Your task to perform on an android device: open app "Duolingo: language lessons" (install if not already installed), go to login, and select forgot password Image 0: 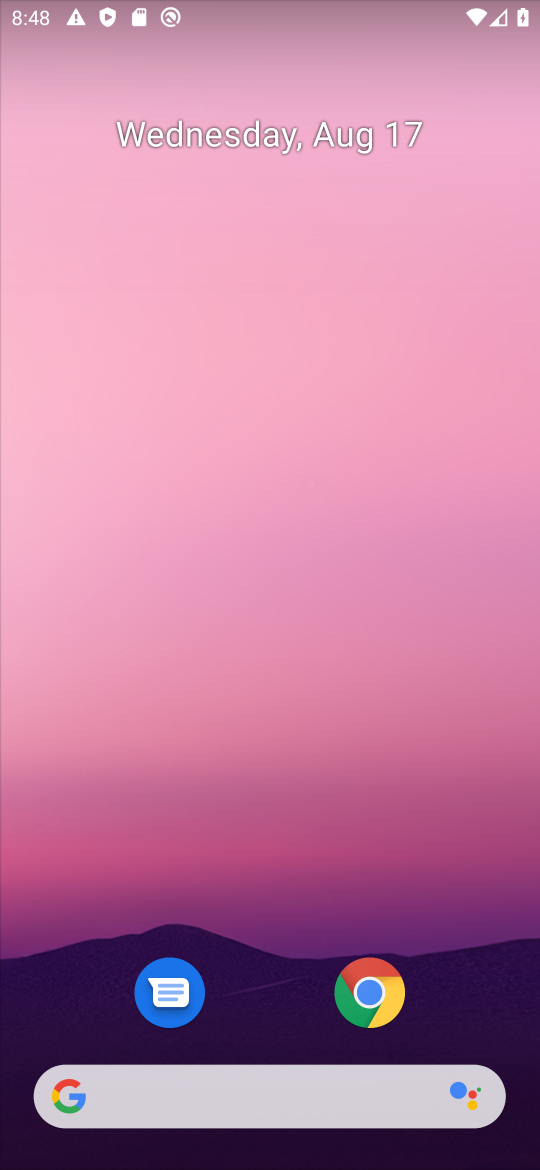
Step 0: drag from (234, 1092) to (329, 288)
Your task to perform on an android device: open app "Duolingo: language lessons" (install if not already installed), go to login, and select forgot password Image 1: 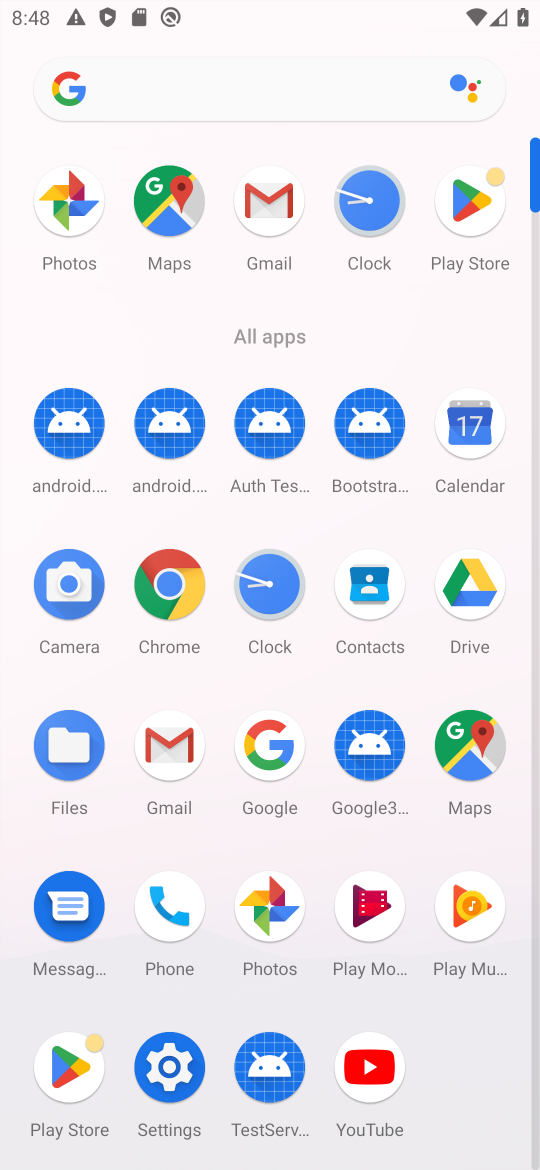
Step 1: click (474, 204)
Your task to perform on an android device: open app "Duolingo: language lessons" (install if not already installed), go to login, and select forgot password Image 2: 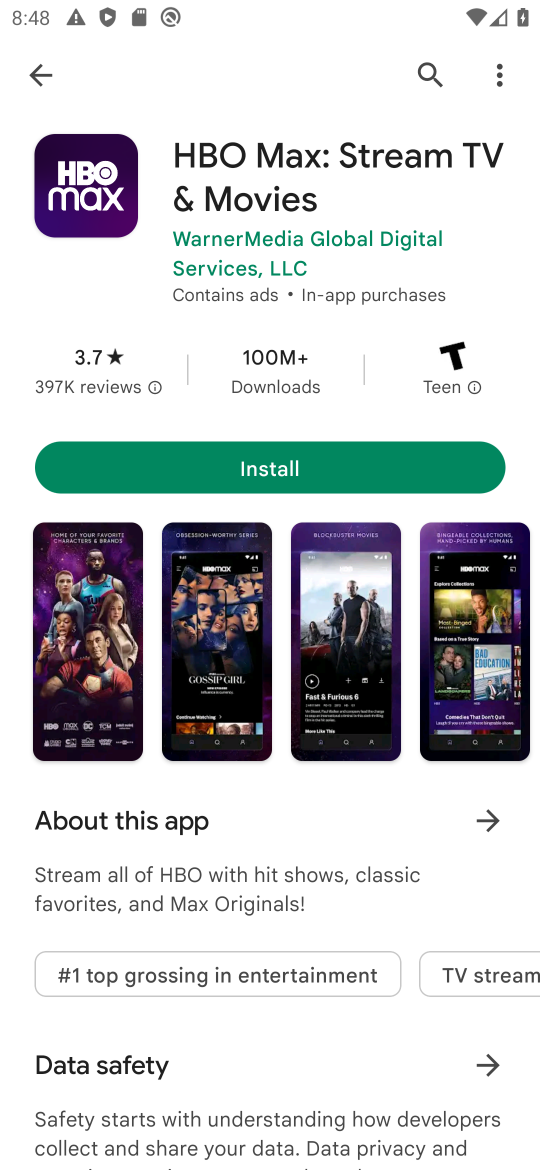
Step 2: click (49, 79)
Your task to perform on an android device: open app "Duolingo: language lessons" (install if not already installed), go to login, and select forgot password Image 3: 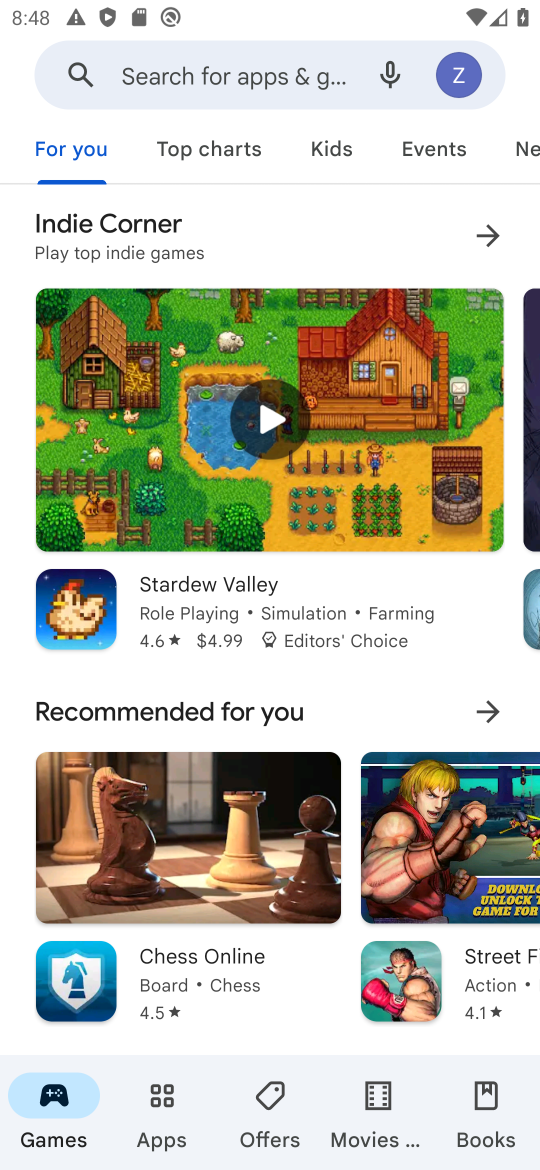
Step 3: click (236, 85)
Your task to perform on an android device: open app "Duolingo: language lessons" (install if not already installed), go to login, and select forgot password Image 4: 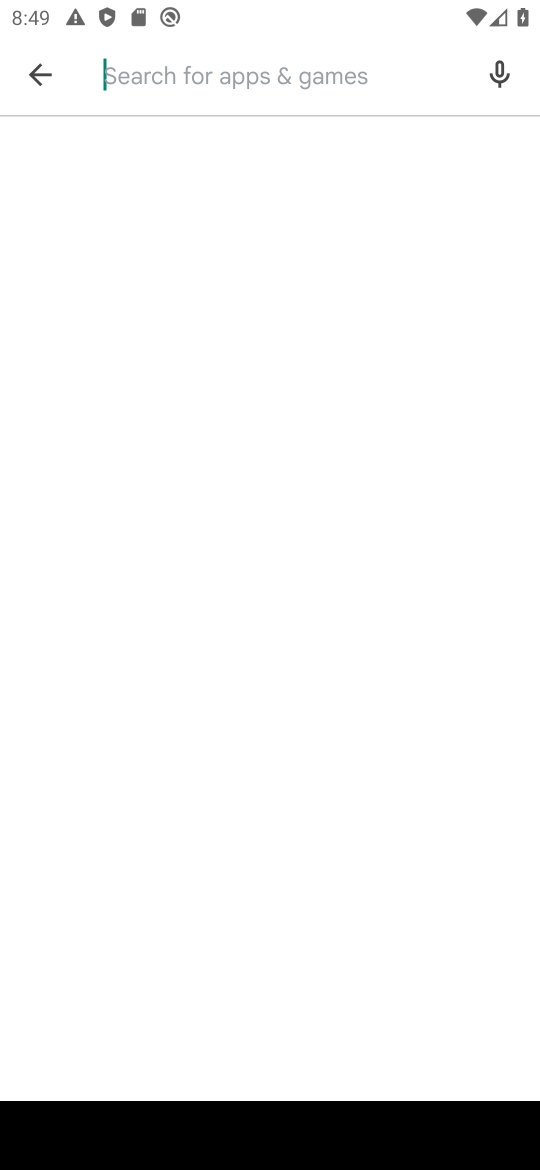
Step 4: type "Duolingo: language lessons"
Your task to perform on an android device: open app "Duolingo: language lessons" (install if not already installed), go to login, and select forgot password Image 5: 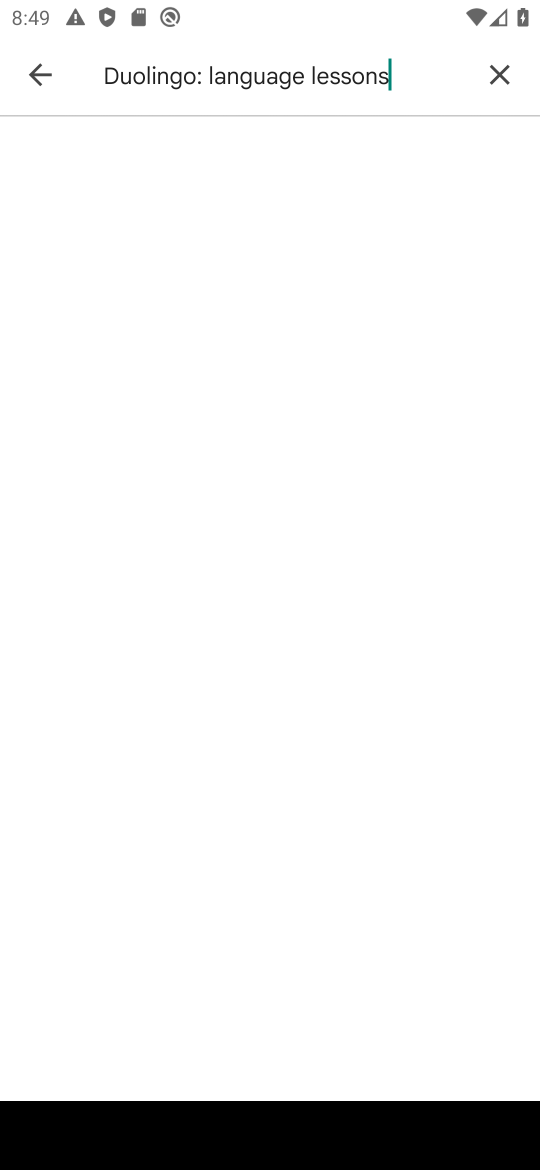
Step 5: type ""
Your task to perform on an android device: open app "Duolingo: language lessons" (install if not already installed), go to login, and select forgot password Image 6: 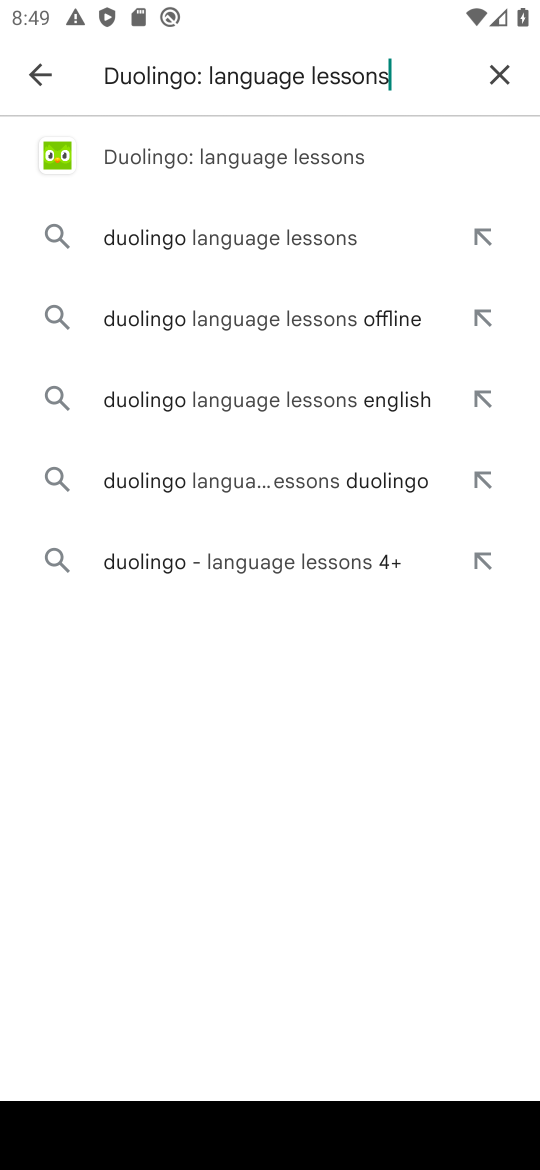
Step 6: click (266, 168)
Your task to perform on an android device: open app "Duolingo: language lessons" (install if not already installed), go to login, and select forgot password Image 7: 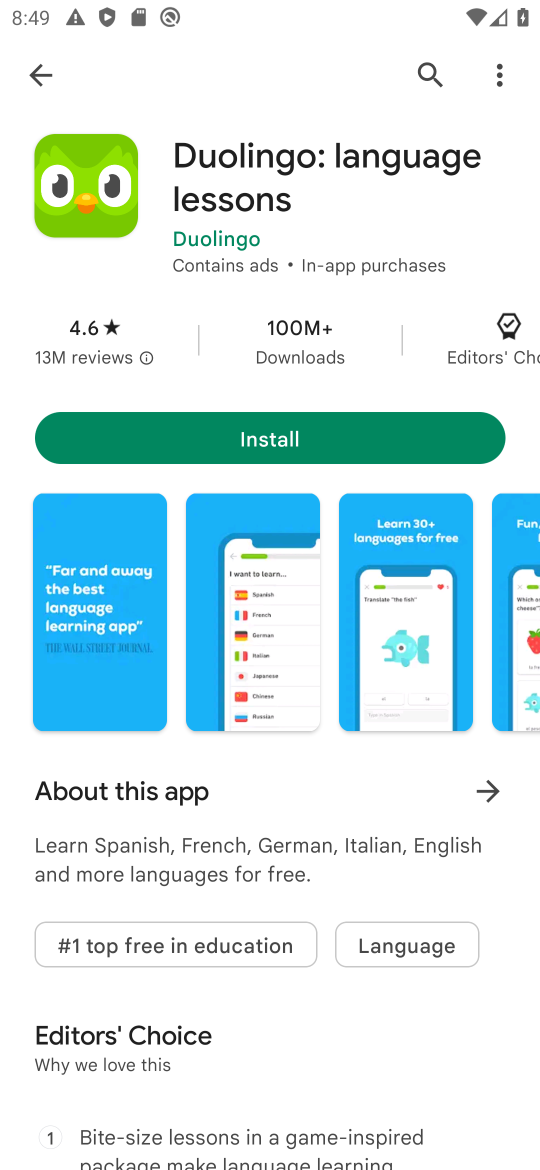
Step 7: click (276, 432)
Your task to perform on an android device: open app "Duolingo: language lessons" (install if not already installed), go to login, and select forgot password Image 8: 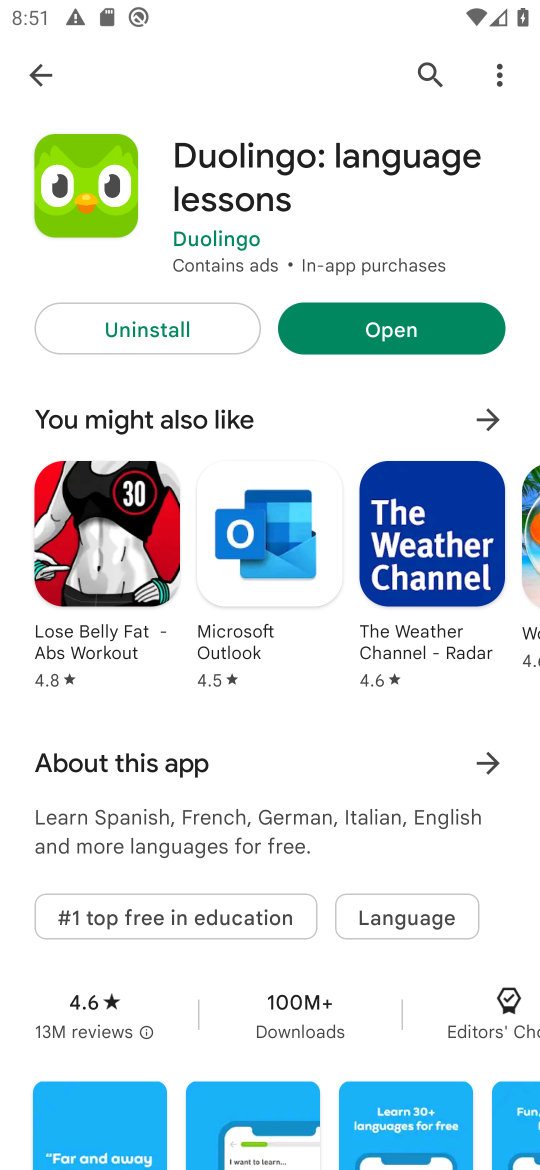
Step 8: click (373, 327)
Your task to perform on an android device: open app "Duolingo: language lessons" (install if not already installed), go to login, and select forgot password Image 9: 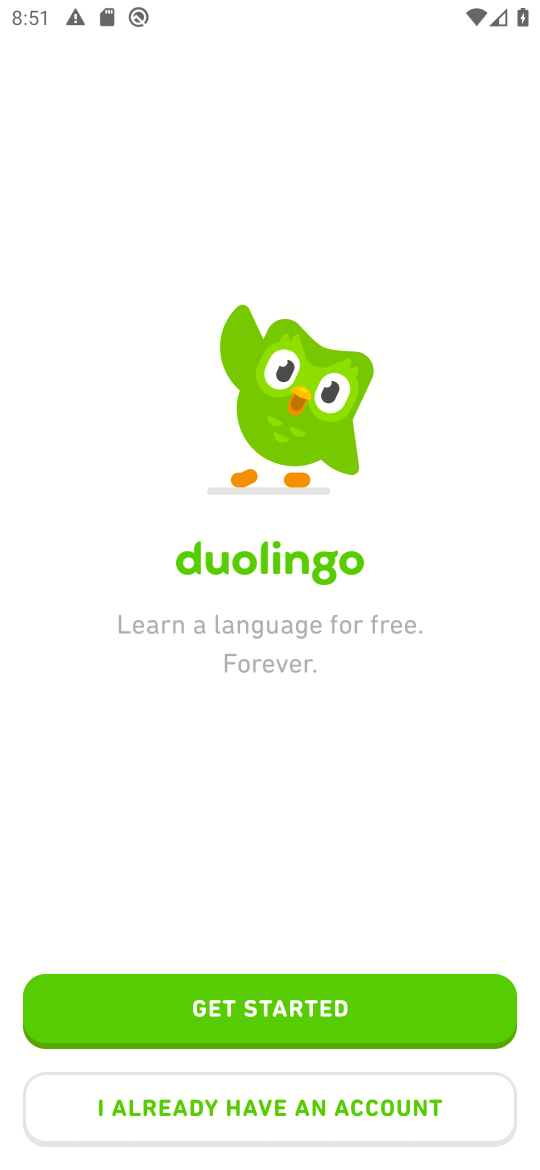
Step 9: click (332, 1001)
Your task to perform on an android device: open app "Duolingo: language lessons" (install if not already installed), go to login, and select forgot password Image 10: 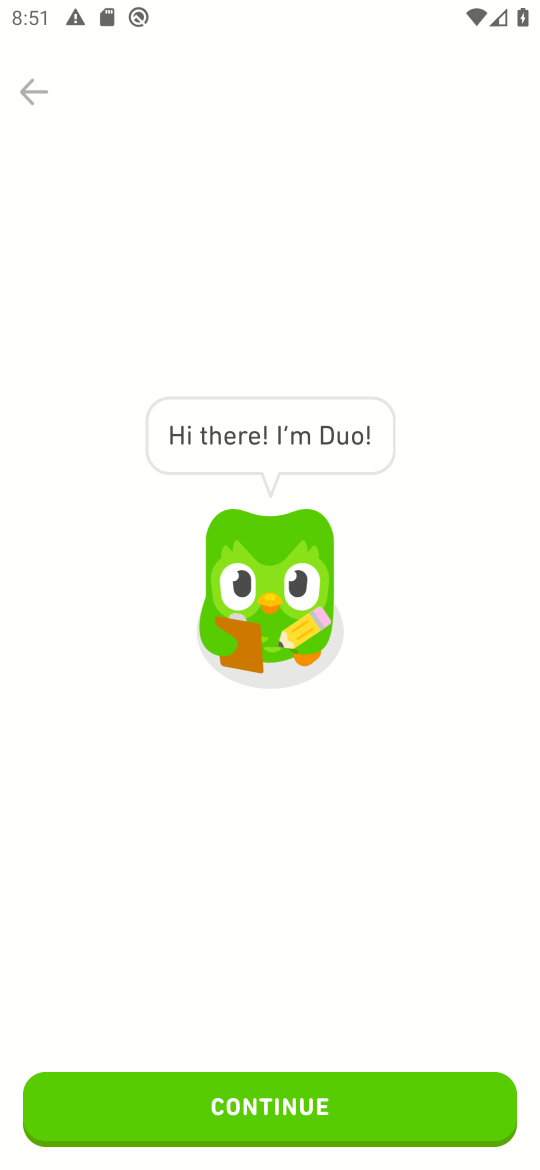
Step 10: click (293, 1096)
Your task to perform on an android device: open app "Duolingo: language lessons" (install if not already installed), go to login, and select forgot password Image 11: 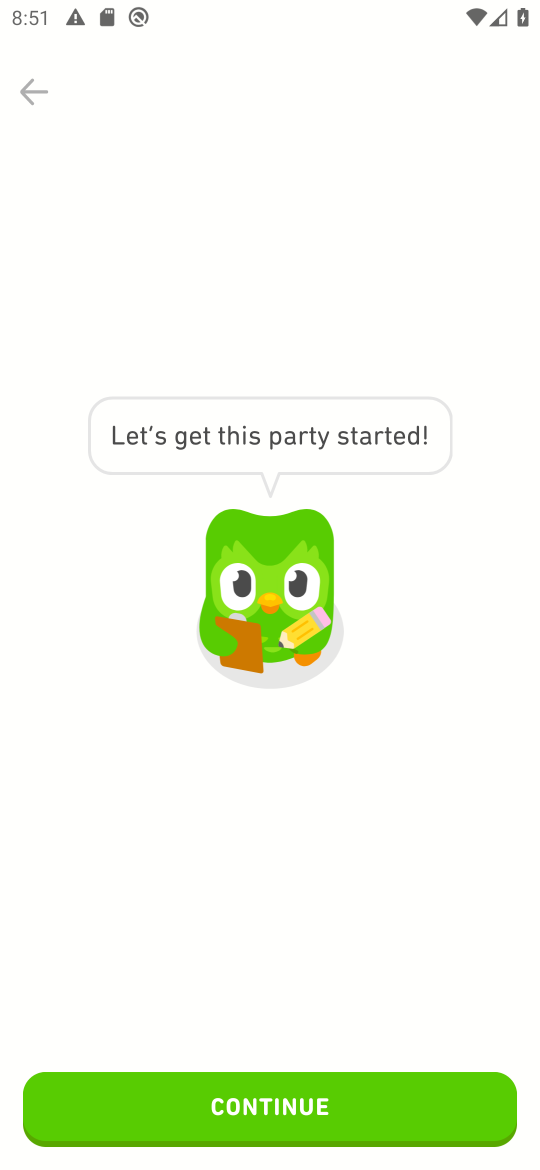
Step 11: click (278, 1115)
Your task to perform on an android device: open app "Duolingo: language lessons" (install if not already installed), go to login, and select forgot password Image 12: 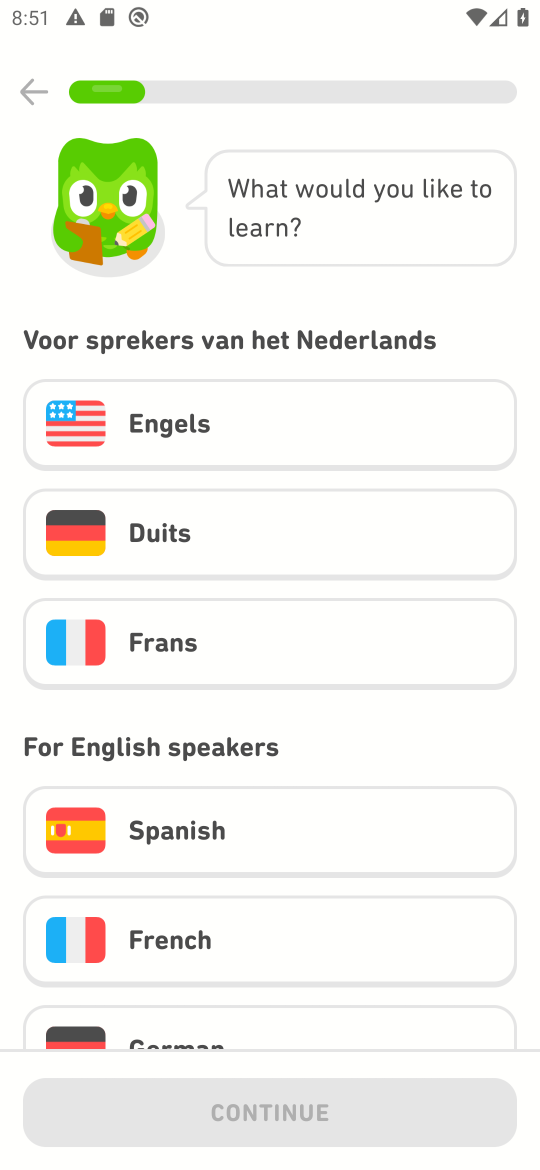
Step 12: drag from (219, 872) to (380, 402)
Your task to perform on an android device: open app "Duolingo: language lessons" (install if not already installed), go to login, and select forgot password Image 13: 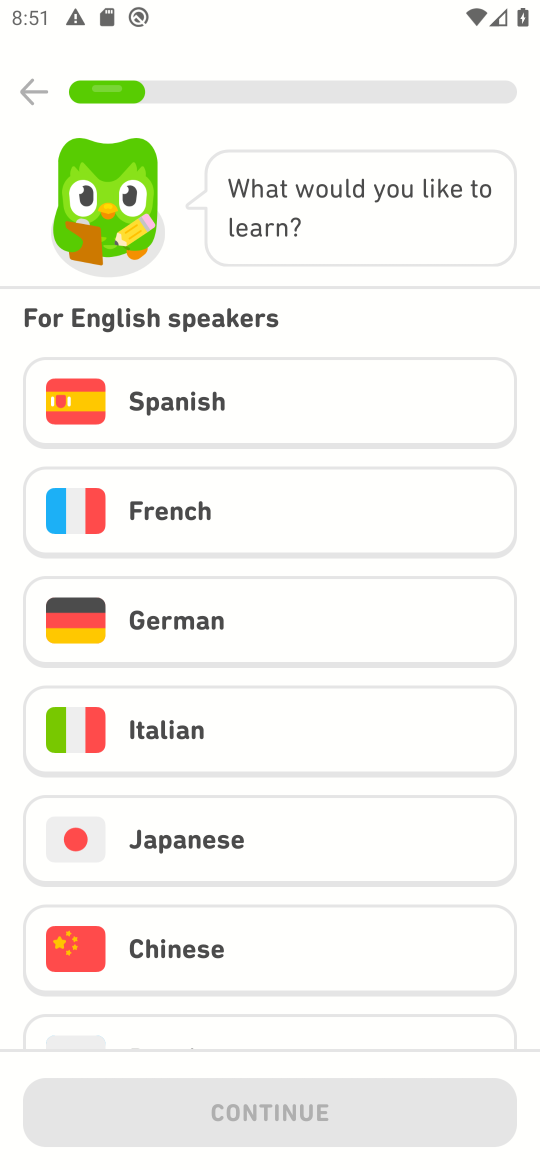
Step 13: drag from (319, 954) to (375, 256)
Your task to perform on an android device: open app "Duolingo: language lessons" (install if not already installed), go to login, and select forgot password Image 14: 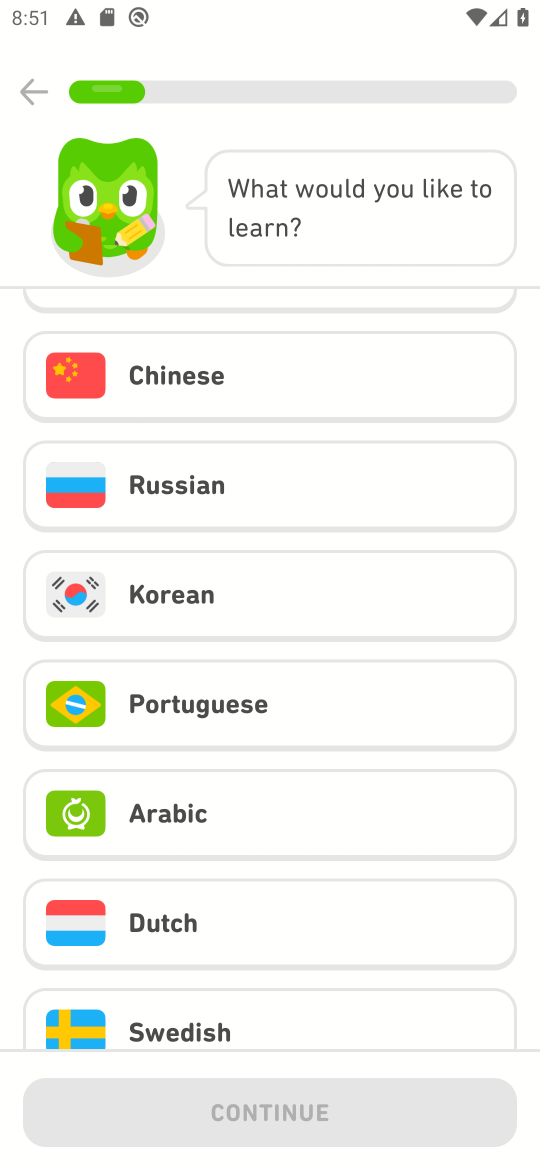
Step 14: drag from (304, 892) to (419, 215)
Your task to perform on an android device: open app "Duolingo: language lessons" (install if not already installed), go to login, and select forgot password Image 15: 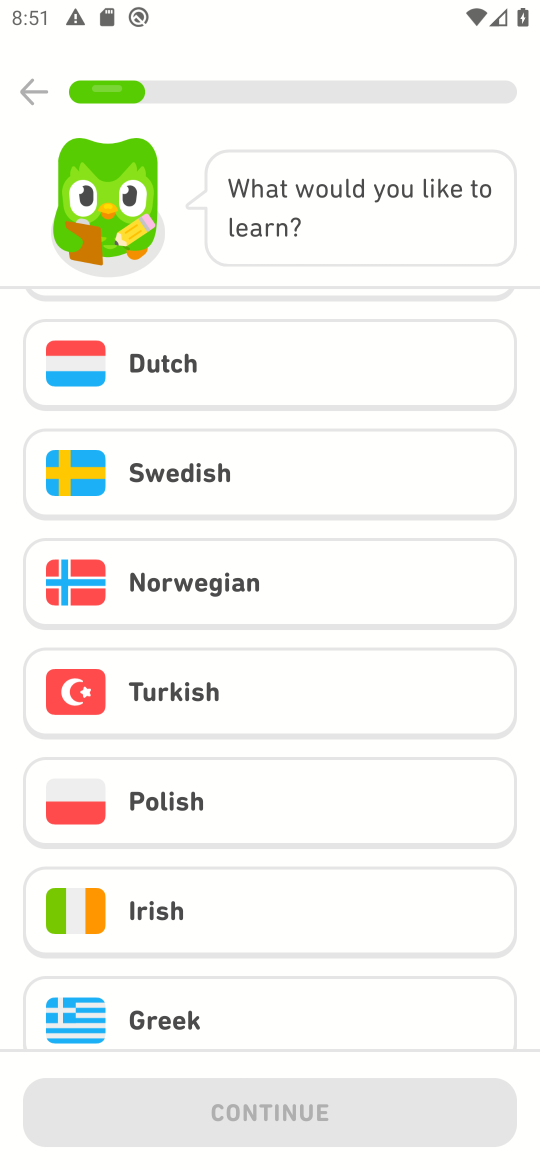
Step 15: drag from (291, 917) to (426, 339)
Your task to perform on an android device: open app "Duolingo: language lessons" (install if not already installed), go to login, and select forgot password Image 16: 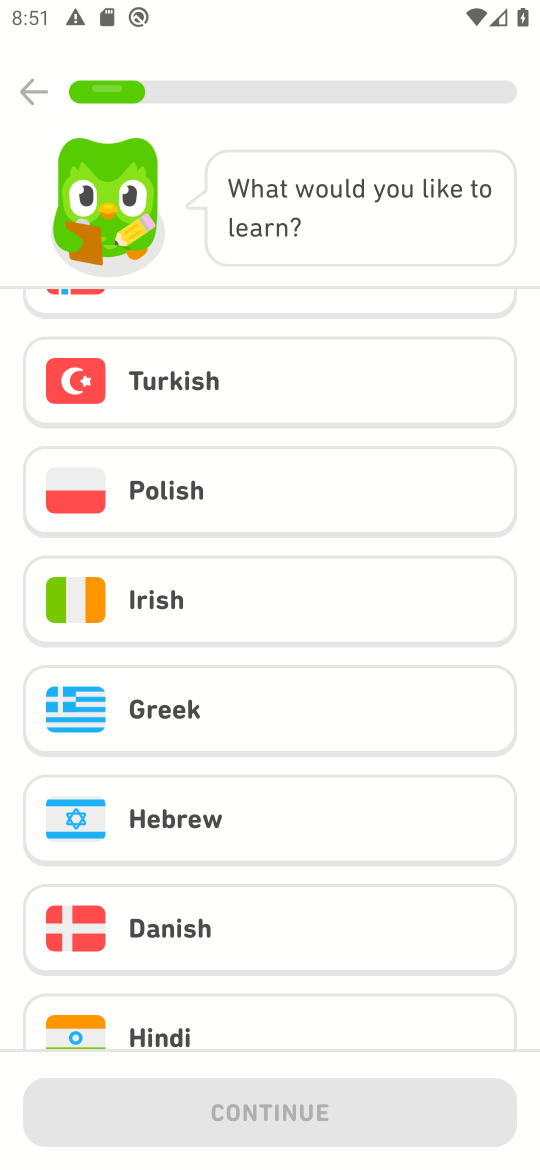
Step 16: click (172, 1012)
Your task to perform on an android device: open app "Duolingo: language lessons" (install if not already installed), go to login, and select forgot password Image 17: 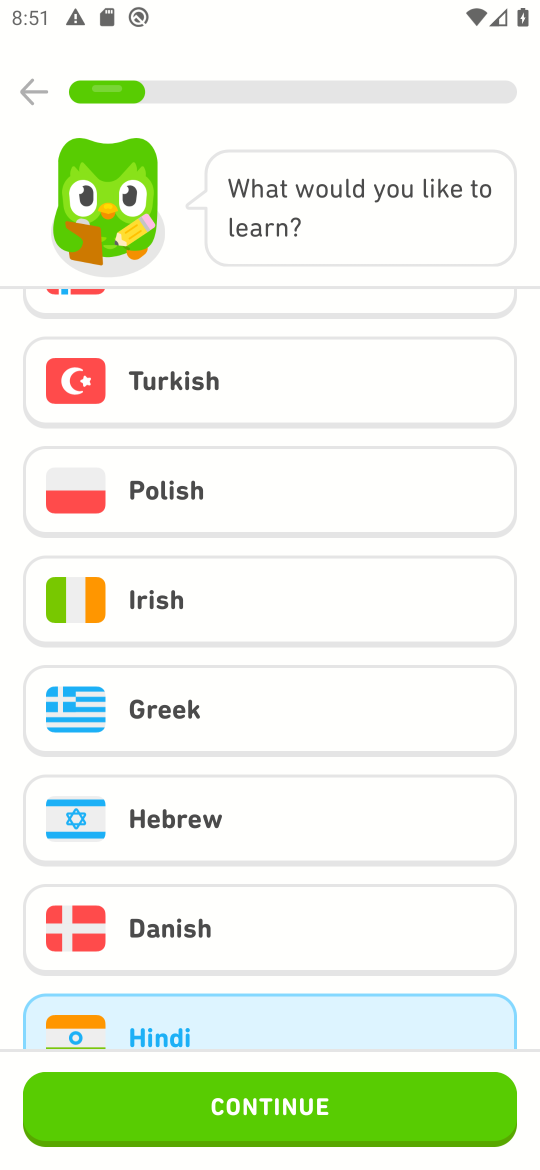
Step 17: click (214, 1117)
Your task to perform on an android device: open app "Duolingo: language lessons" (install if not already installed), go to login, and select forgot password Image 18: 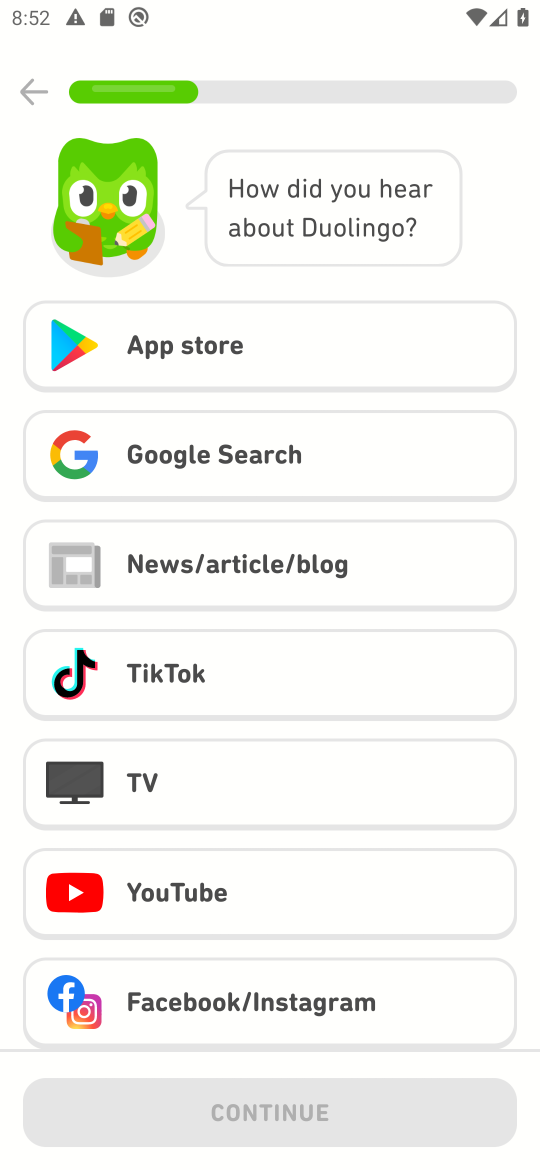
Step 18: click (209, 370)
Your task to perform on an android device: open app "Duolingo: language lessons" (install if not already installed), go to login, and select forgot password Image 19: 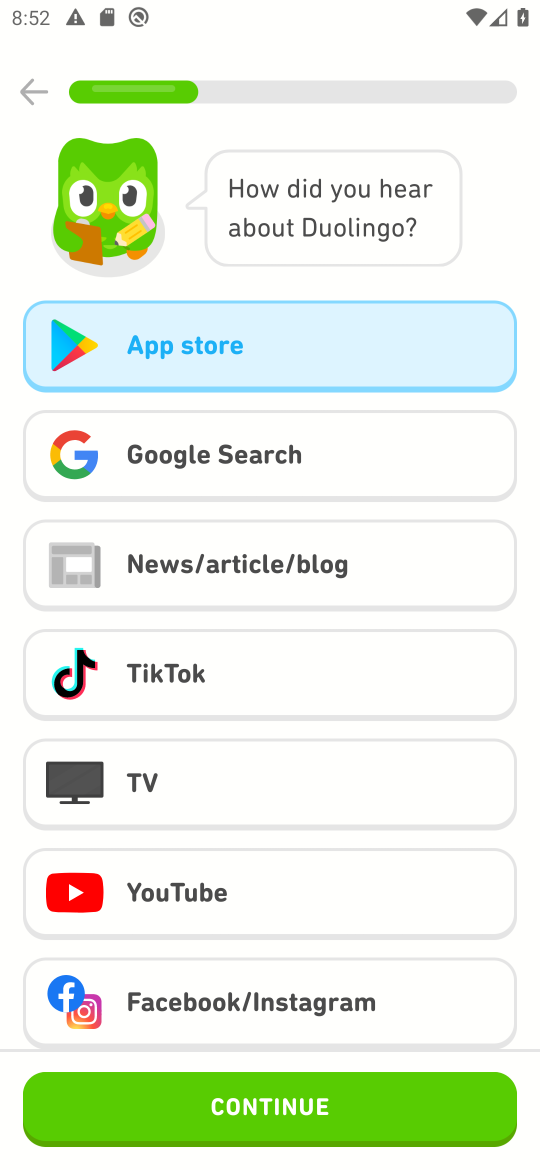
Step 19: click (299, 1006)
Your task to perform on an android device: open app "Duolingo: language lessons" (install if not already installed), go to login, and select forgot password Image 20: 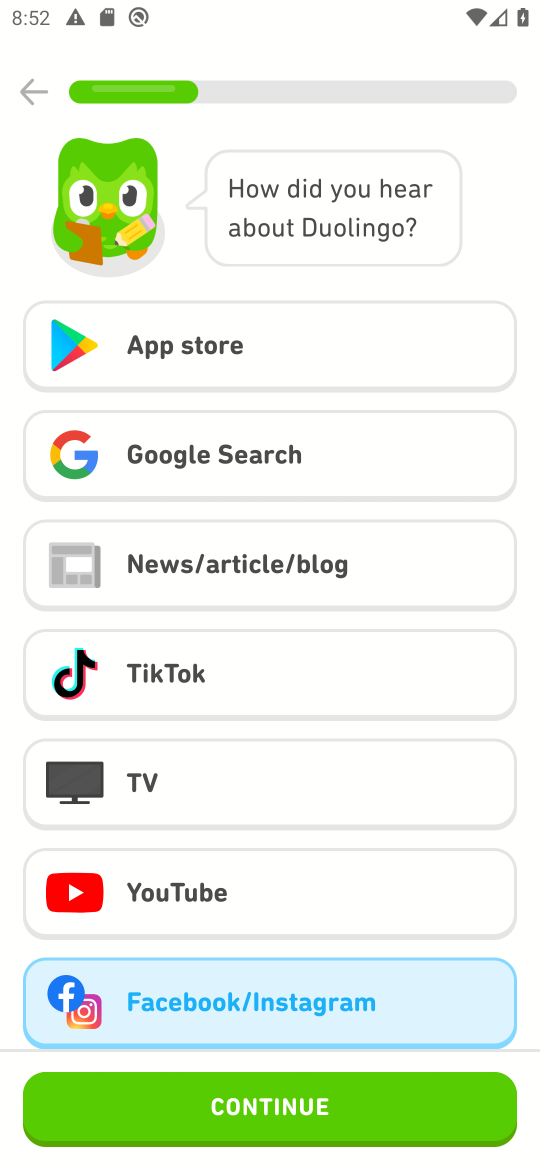
Step 20: click (321, 1100)
Your task to perform on an android device: open app "Duolingo: language lessons" (install if not already installed), go to login, and select forgot password Image 21: 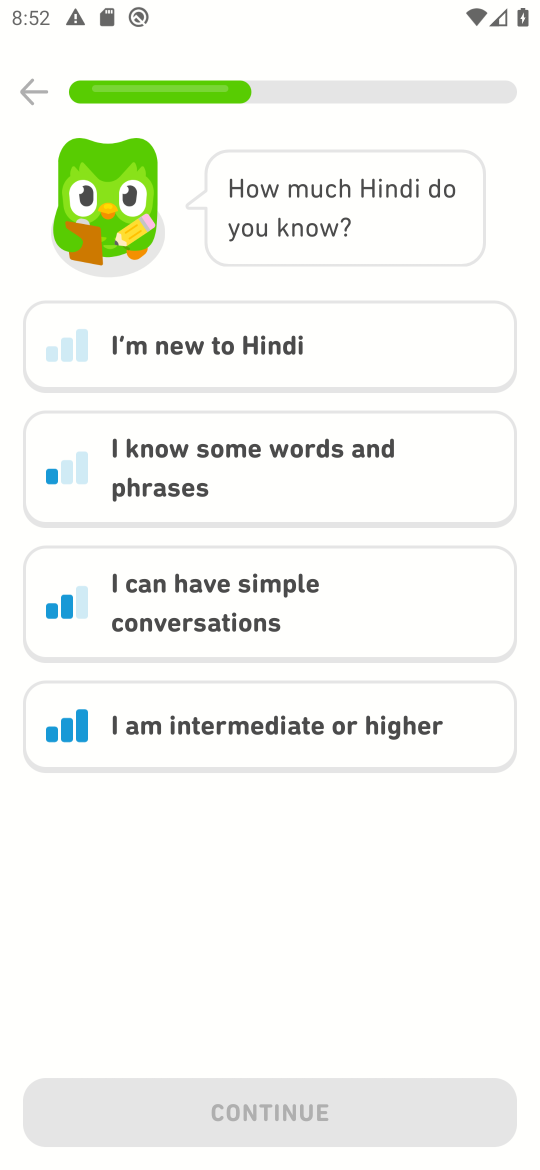
Step 21: task complete